Your task to perform on an android device: Open the Play Movies app and select the watchlist tab. Image 0: 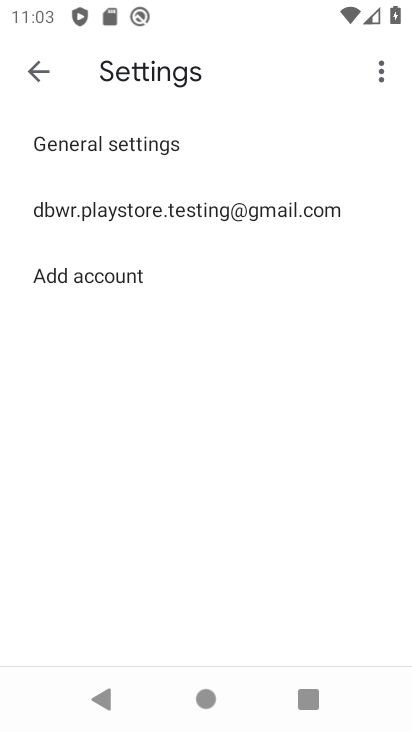
Step 0: press home button
Your task to perform on an android device: Open the Play Movies app and select the watchlist tab. Image 1: 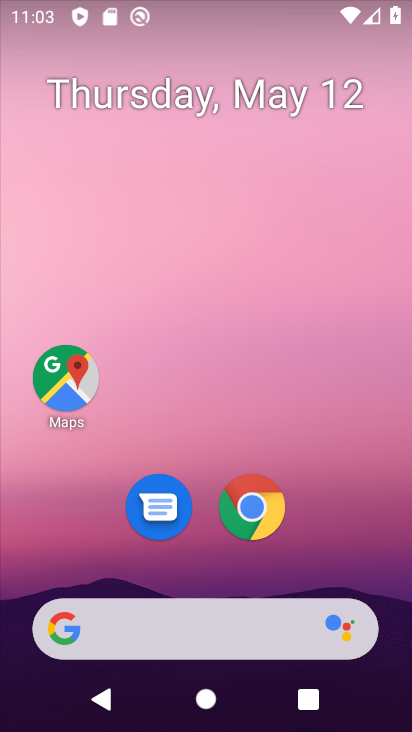
Step 1: drag from (101, 592) to (199, 167)
Your task to perform on an android device: Open the Play Movies app and select the watchlist tab. Image 2: 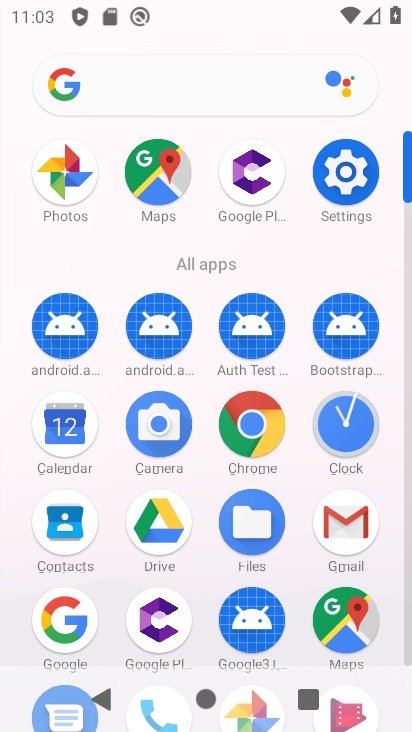
Step 2: drag from (330, 668) to (398, 355)
Your task to perform on an android device: Open the Play Movies app and select the watchlist tab. Image 3: 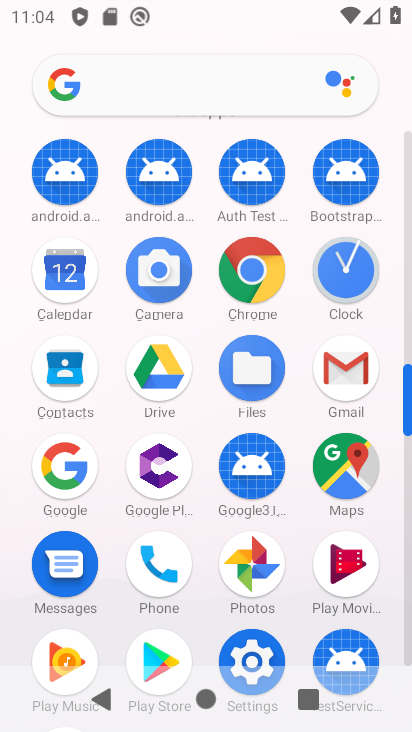
Step 3: click (357, 550)
Your task to perform on an android device: Open the Play Movies app and select the watchlist tab. Image 4: 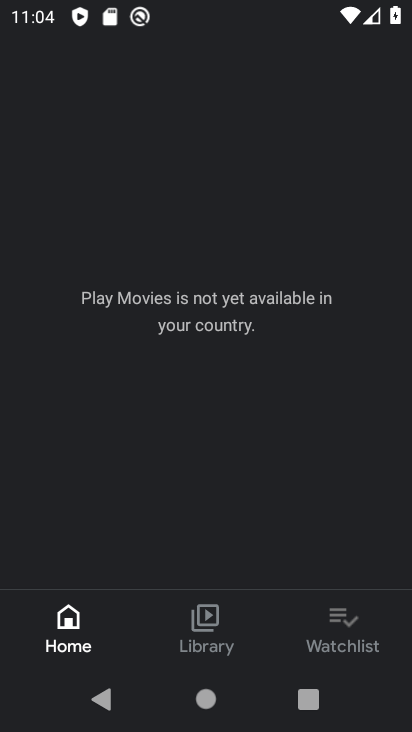
Step 4: click (353, 615)
Your task to perform on an android device: Open the Play Movies app and select the watchlist tab. Image 5: 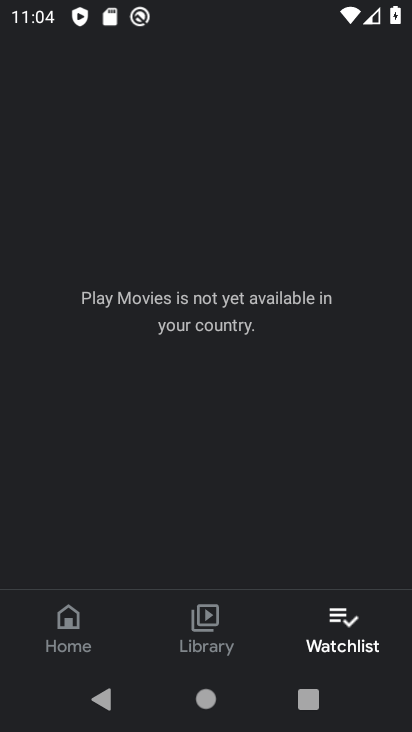
Step 5: click (353, 615)
Your task to perform on an android device: Open the Play Movies app and select the watchlist tab. Image 6: 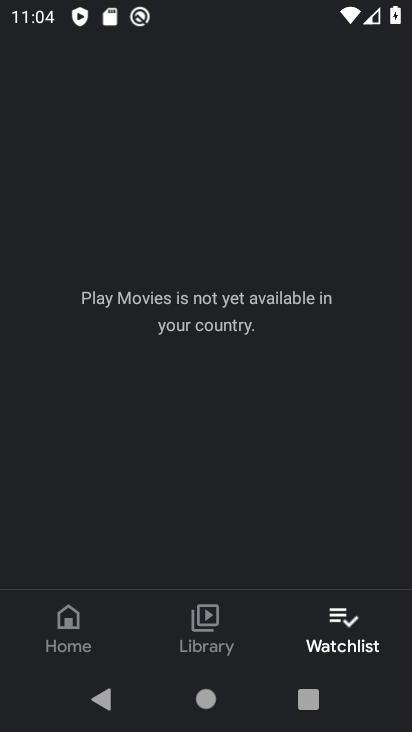
Step 6: task complete